Your task to perform on an android device: Open the web browser Image 0: 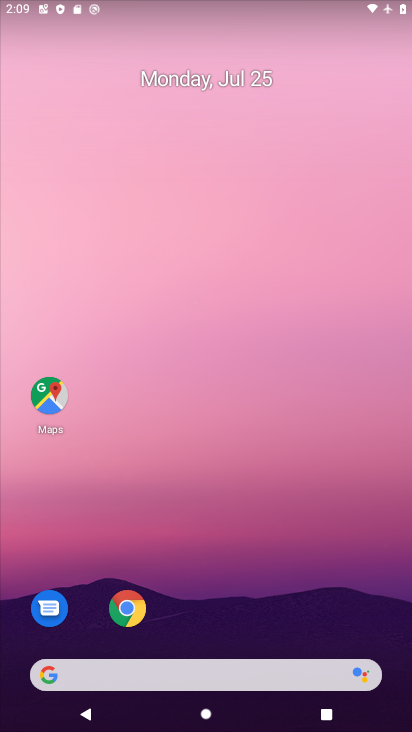
Step 0: drag from (242, 615) to (371, 22)
Your task to perform on an android device: Open the web browser Image 1: 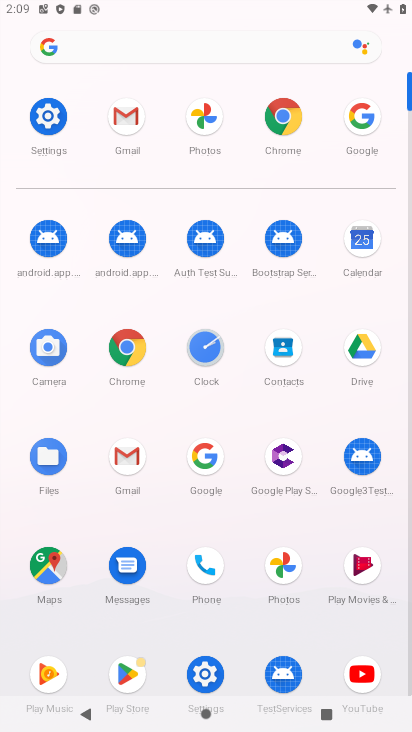
Step 1: click (305, 145)
Your task to perform on an android device: Open the web browser Image 2: 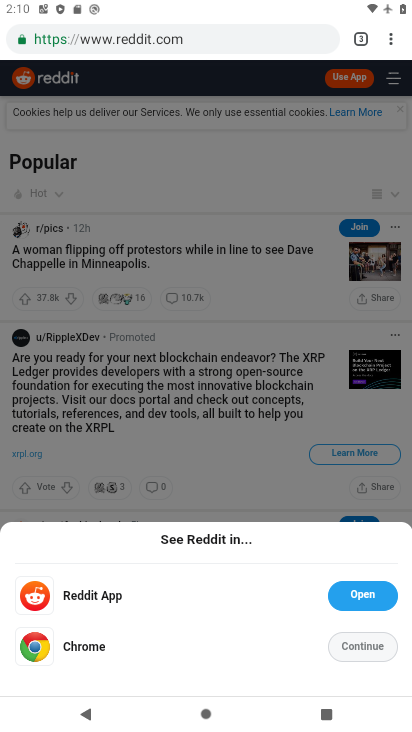
Step 2: task complete